Your task to perform on an android device: turn notification dots on Image 0: 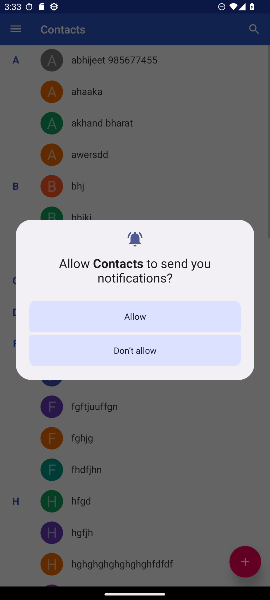
Step 0: press home button
Your task to perform on an android device: turn notification dots on Image 1: 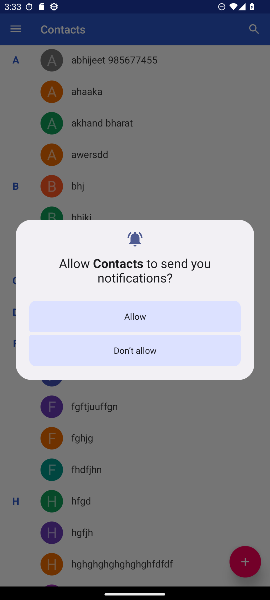
Step 1: press home button
Your task to perform on an android device: turn notification dots on Image 2: 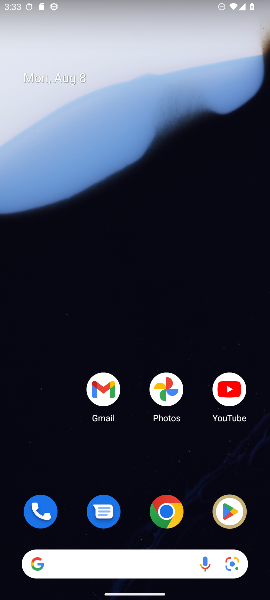
Step 2: drag from (129, 463) to (173, 69)
Your task to perform on an android device: turn notification dots on Image 3: 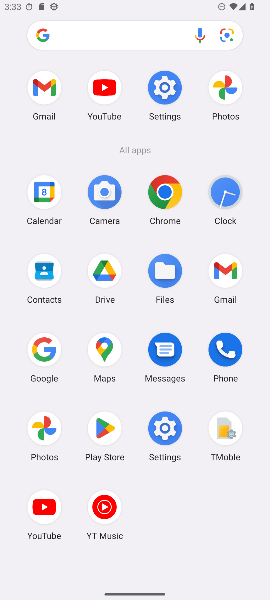
Step 3: click (173, 425)
Your task to perform on an android device: turn notification dots on Image 4: 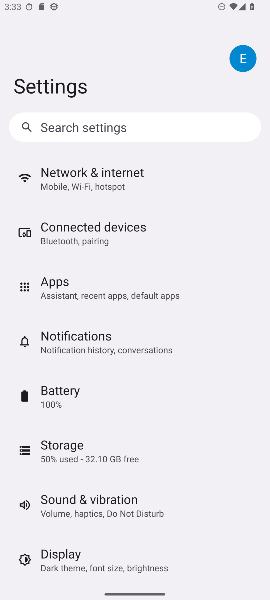
Step 4: click (94, 338)
Your task to perform on an android device: turn notification dots on Image 5: 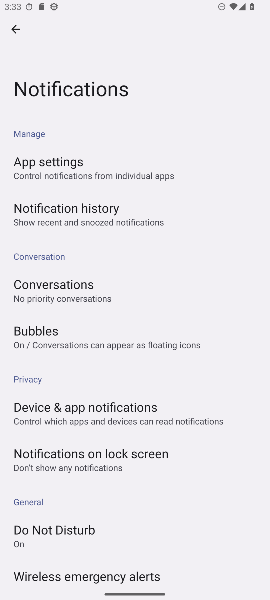
Step 5: drag from (154, 445) to (164, 172)
Your task to perform on an android device: turn notification dots on Image 6: 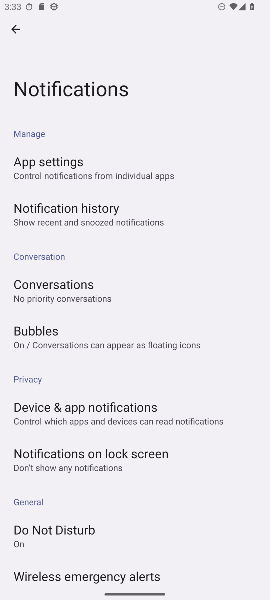
Step 6: click (99, 416)
Your task to perform on an android device: turn notification dots on Image 7: 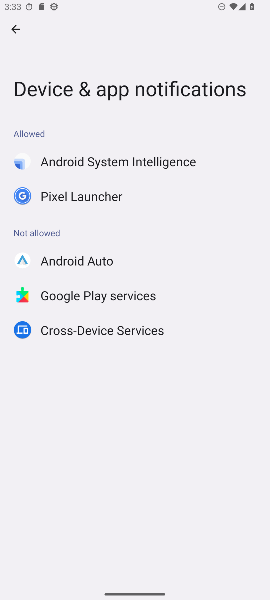
Step 7: click (4, 27)
Your task to perform on an android device: turn notification dots on Image 8: 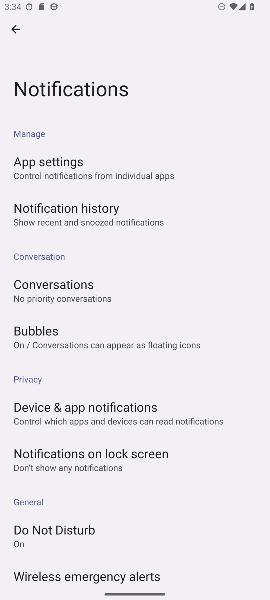
Step 8: click (113, 467)
Your task to perform on an android device: turn notification dots on Image 9: 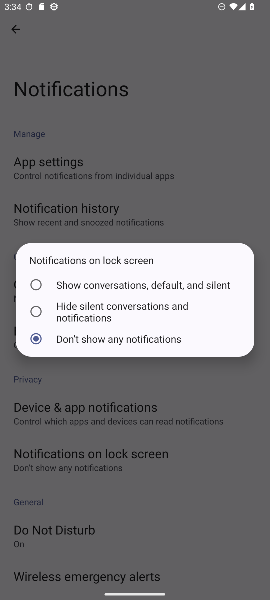
Step 9: click (17, 27)
Your task to perform on an android device: turn notification dots on Image 10: 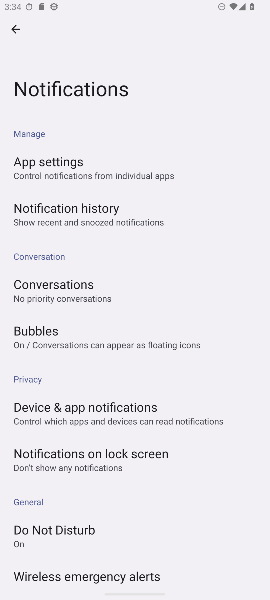
Step 10: click (94, 101)
Your task to perform on an android device: turn notification dots on Image 11: 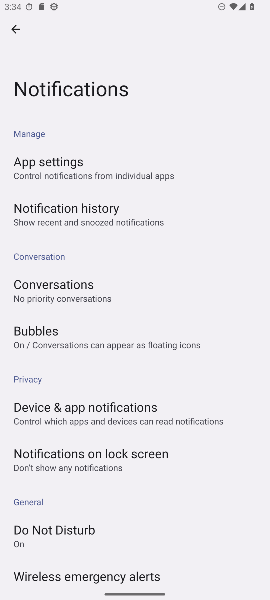
Step 11: click (21, 31)
Your task to perform on an android device: turn notification dots on Image 12: 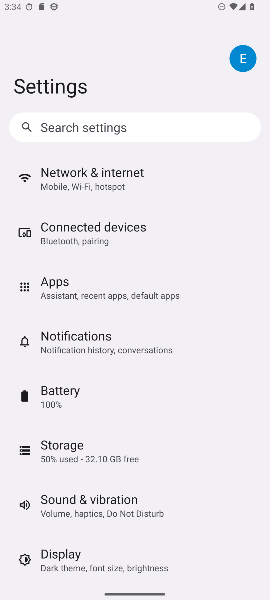
Step 12: click (124, 338)
Your task to perform on an android device: turn notification dots on Image 13: 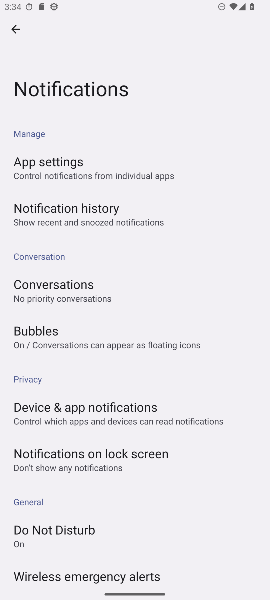
Step 13: click (92, 170)
Your task to perform on an android device: turn notification dots on Image 14: 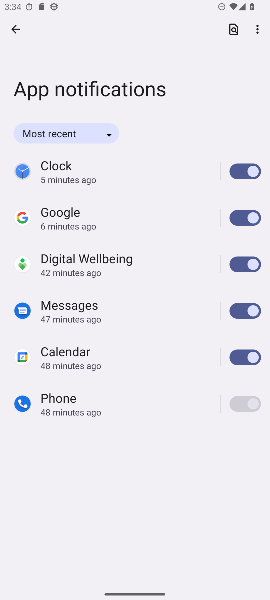
Step 14: click (18, 25)
Your task to perform on an android device: turn notification dots on Image 15: 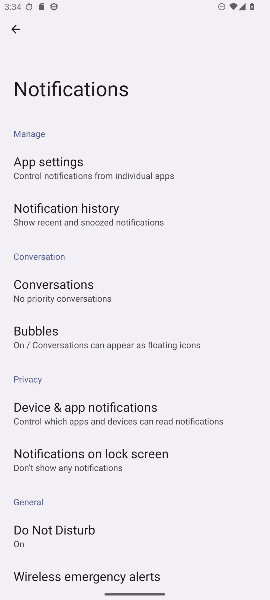
Step 15: task complete